Your task to perform on an android device: toggle location history Image 0: 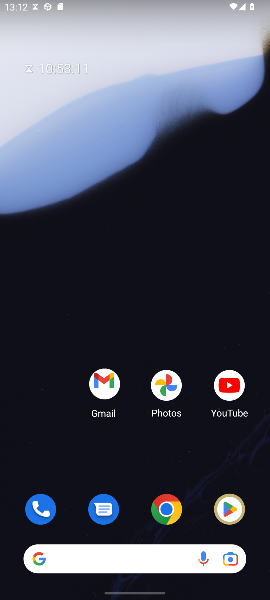
Step 0: press home button
Your task to perform on an android device: toggle location history Image 1: 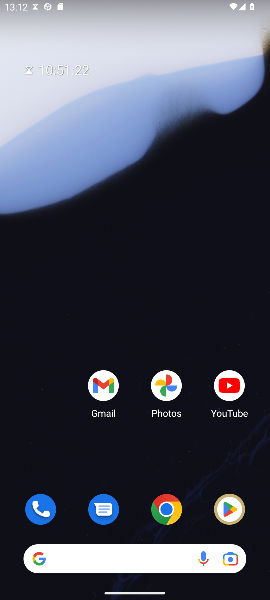
Step 1: drag from (133, 526) to (154, 97)
Your task to perform on an android device: toggle location history Image 2: 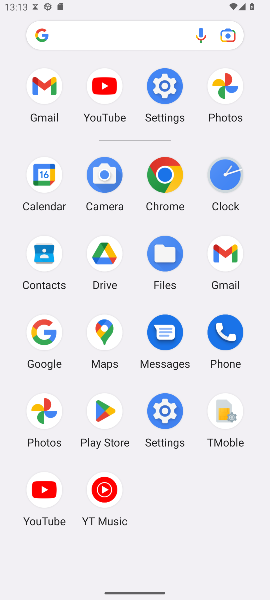
Step 2: click (161, 88)
Your task to perform on an android device: toggle location history Image 3: 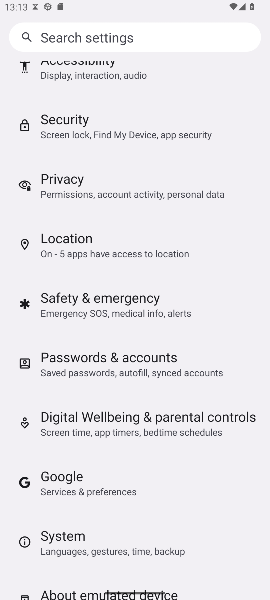
Step 3: click (67, 246)
Your task to perform on an android device: toggle location history Image 4: 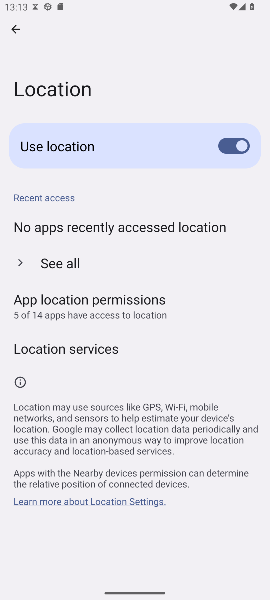
Step 4: click (67, 352)
Your task to perform on an android device: toggle location history Image 5: 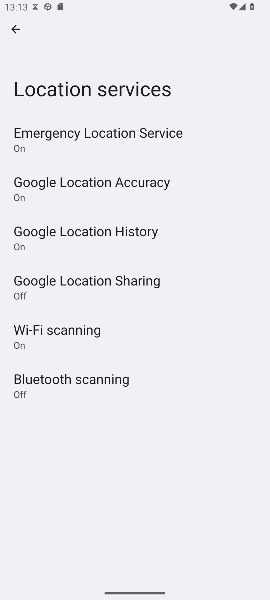
Step 5: click (97, 225)
Your task to perform on an android device: toggle location history Image 6: 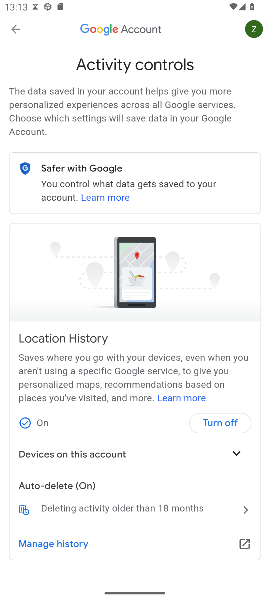
Step 6: click (215, 422)
Your task to perform on an android device: toggle location history Image 7: 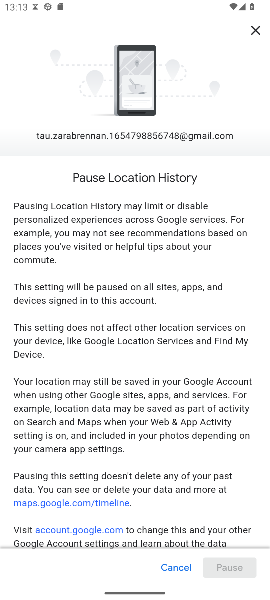
Step 7: drag from (223, 517) to (239, 158)
Your task to perform on an android device: toggle location history Image 8: 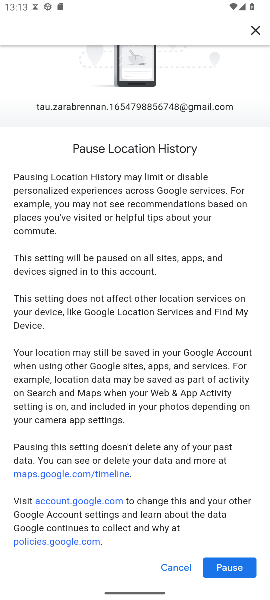
Step 8: click (221, 567)
Your task to perform on an android device: toggle location history Image 9: 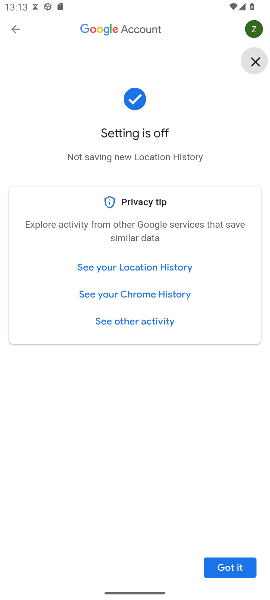
Step 9: click (223, 567)
Your task to perform on an android device: toggle location history Image 10: 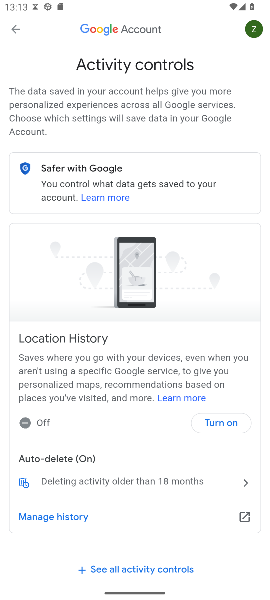
Step 10: task complete